Your task to perform on an android device: turn off notifications in google photos Image 0: 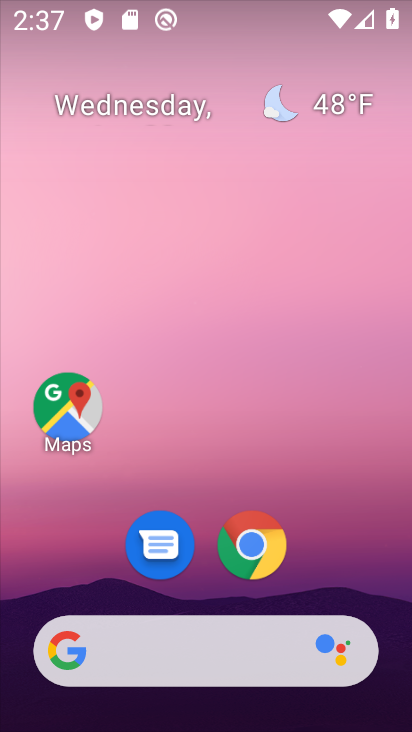
Step 0: drag from (281, 607) to (263, 150)
Your task to perform on an android device: turn off notifications in google photos Image 1: 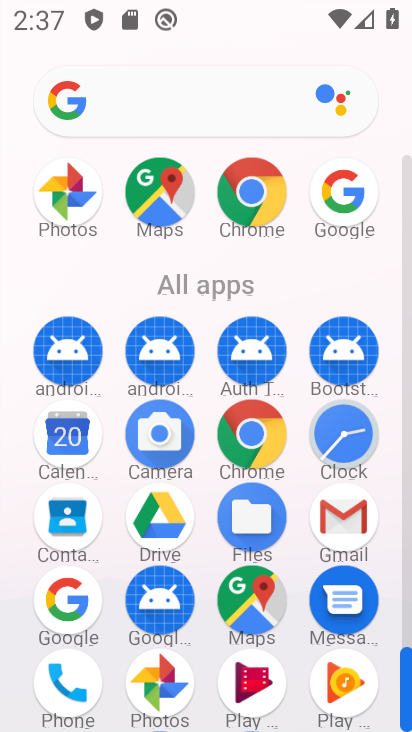
Step 1: click (80, 209)
Your task to perform on an android device: turn off notifications in google photos Image 2: 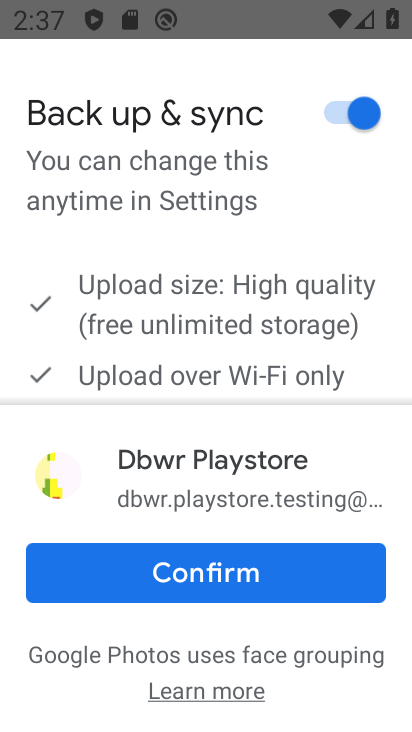
Step 2: click (291, 551)
Your task to perform on an android device: turn off notifications in google photos Image 3: 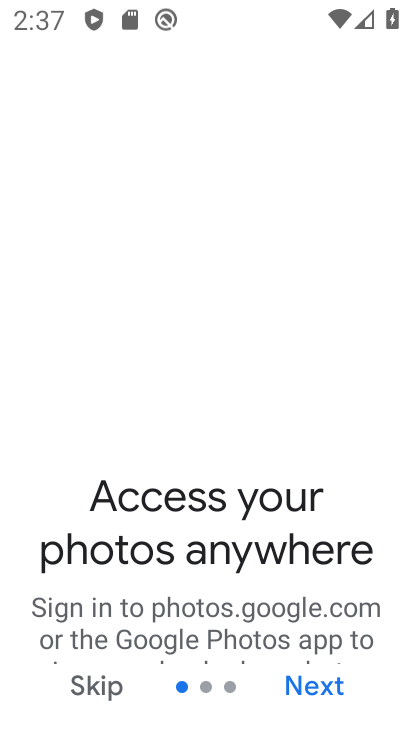
Step 3: click (328, 683)
Your task to perform on an android device: turn off notifications in google photos Image 4: 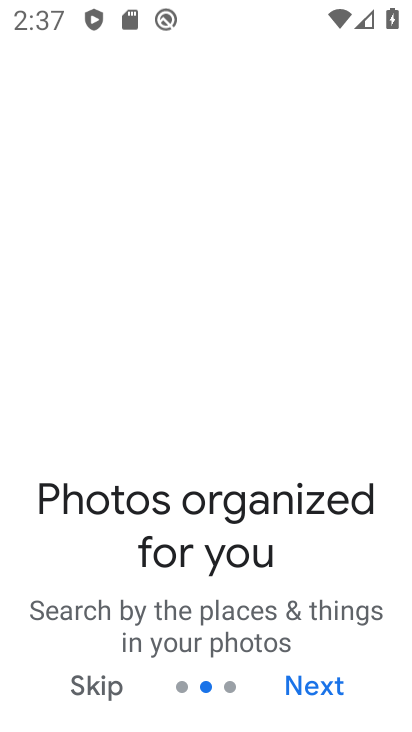
Step 4: click (328, 683)
Your task to perform on an android device: turn off notifications in google photos Image 5: 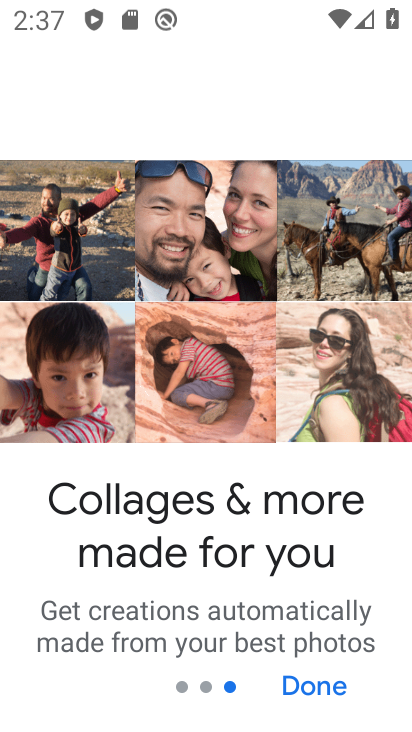
Step 5: click (328, 683)
Your task to perform on an android device: turn off notifications in google photos Image 6: 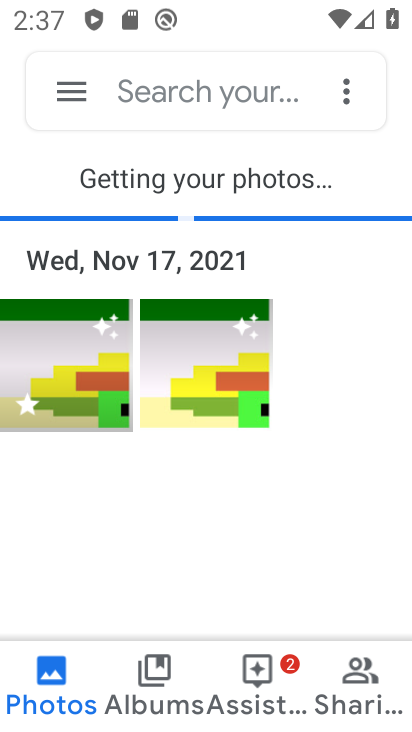
Step 6: click (73, 91)
Your task to perform on an android device: turn off notifications in google photos Image 7: 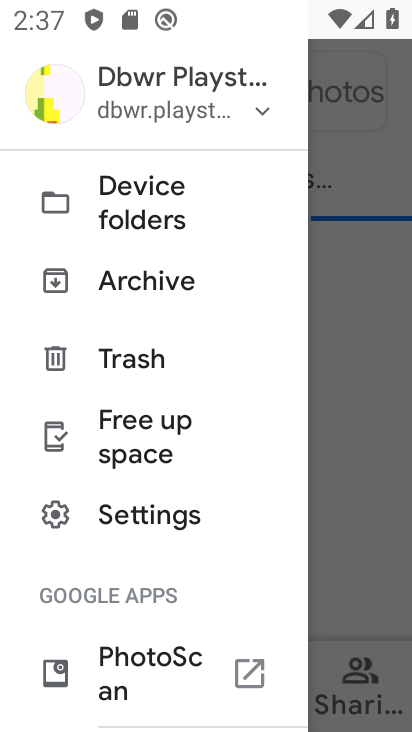
Step 7: click (175, 507)
Your task to perform on an android device: turn off notifications in google photos Image 8: 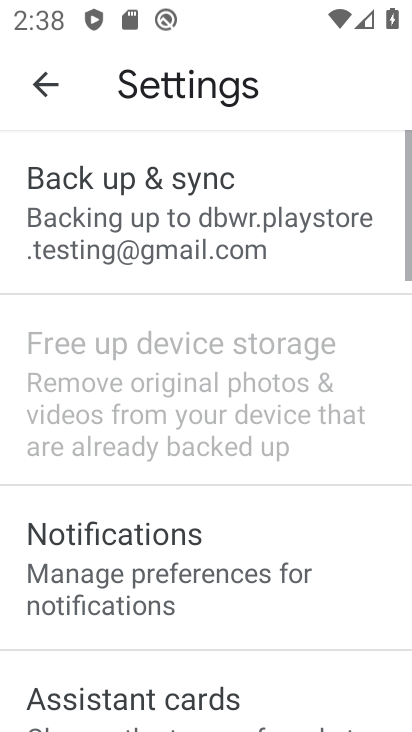
Step 8: drag from (174, 503) to (169, 190)
Your task to perform on an android device: turn off notifications in google photos Image 9: 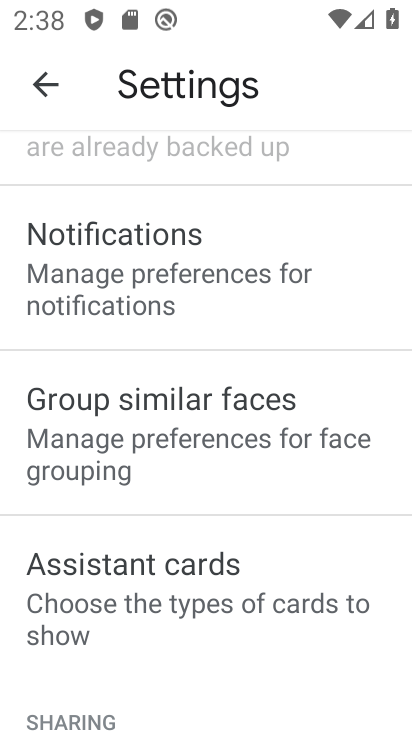
Step 9: click (165, 288)
Your task to perform on an android device: turn off notifications in google photos Image 10: 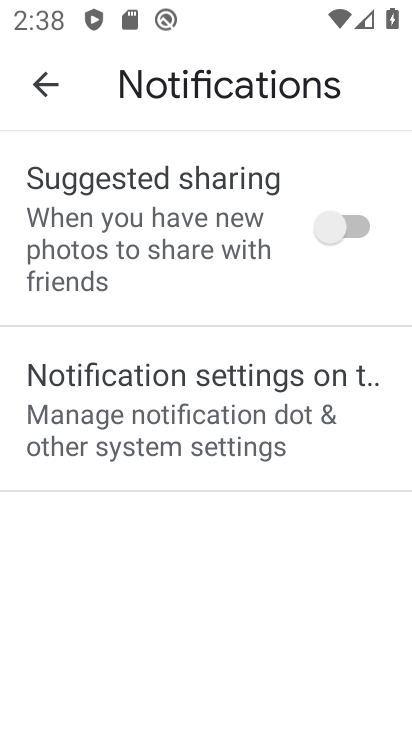
Step 10: click (316, 375)
Your task to perform on an android device: turn off notifications in google photos Image 11: 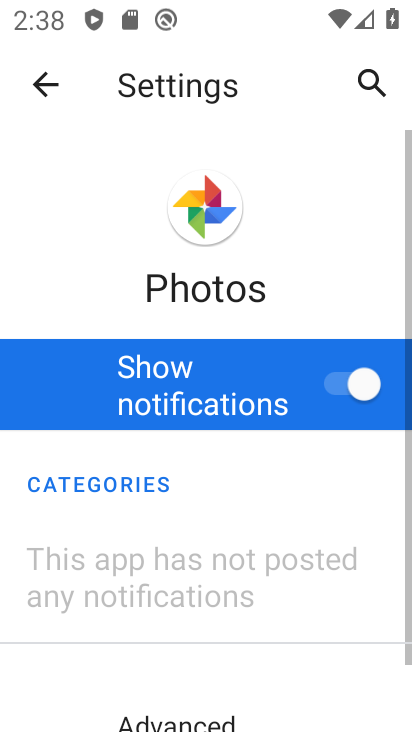
Step 11: click (367, 379)
Your task to perform on an android device: turn off notifications in google photos Image 12: 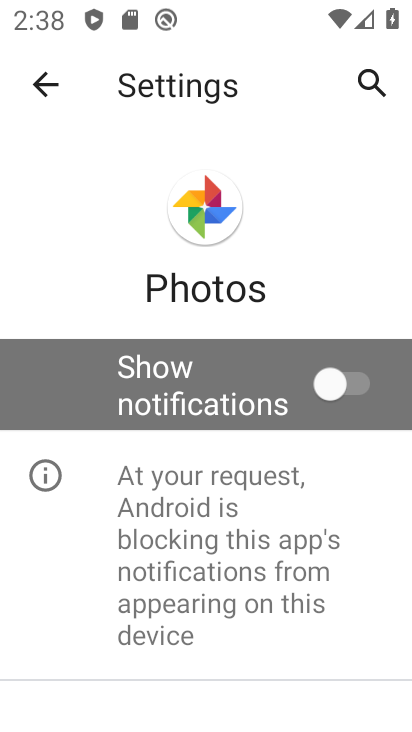
Step 12: task complete